Your task to perform on an android device: change alarm snooze length Image 0: 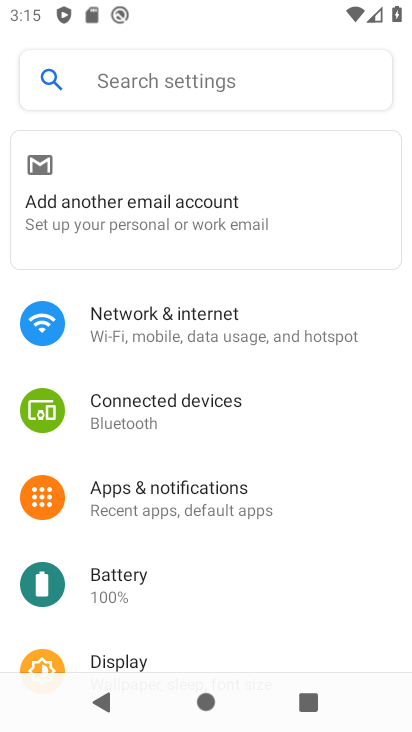
Step 0: press home button
Your task to perform on an android device: change alarm snooze length Image 1: 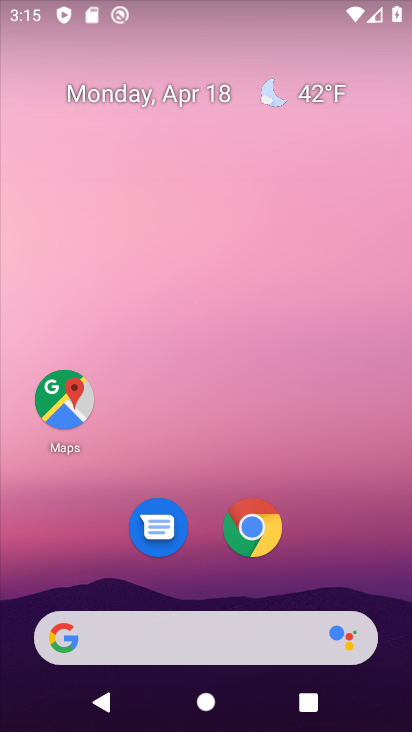
Step 1: drag from (390, 589) to (343, 85)
Your task to perform on an android device: change alarm snooze length Image 2: 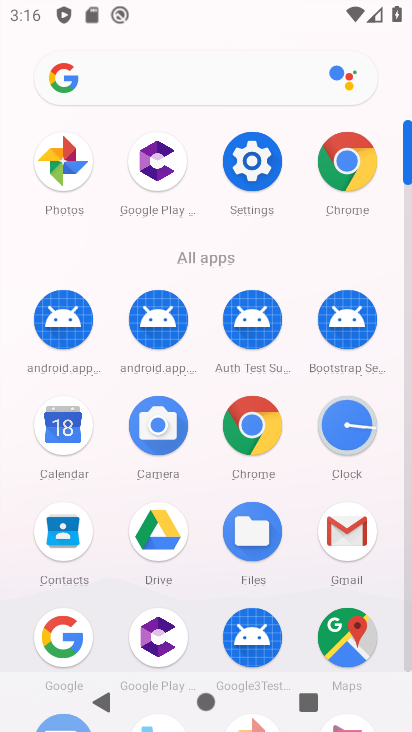
Step 2: click (406, 647)
Your task to perform on an android device: change alarm snooze length Image 3: 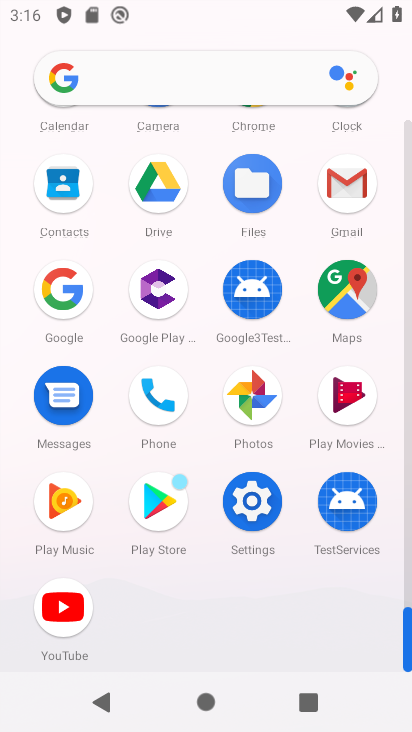
Step 3: click (406, 237)
Your task to perform on an android device: change alarm snooze length Image 4: 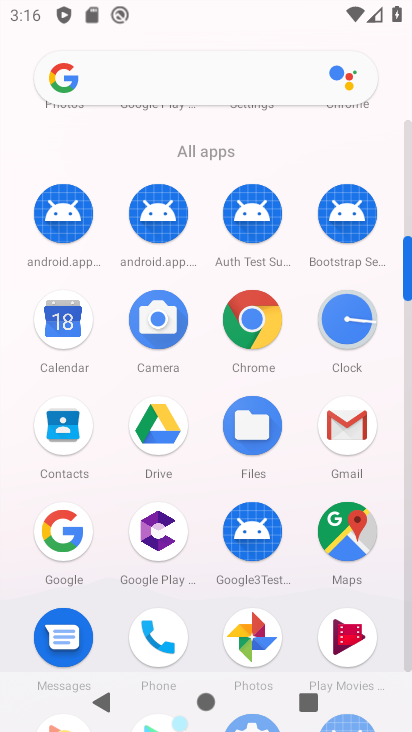
Step 4: click (341, 316)
Your task to perform on an android device: change alarm snooze length Image 5: 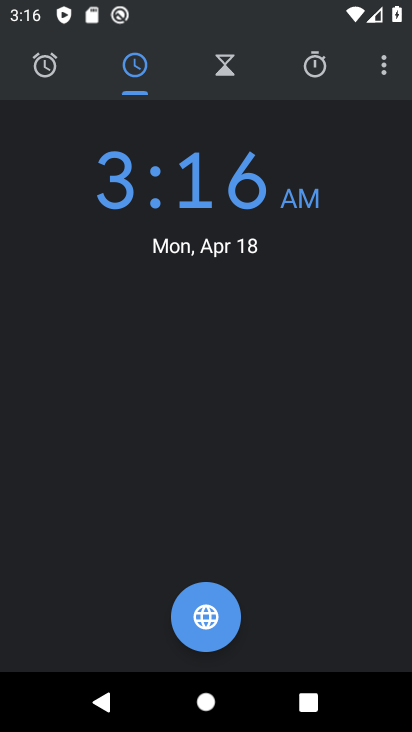
Step 5: click (379, 59)
Your task to perform on an android device: change alarm snooze length Image 6: 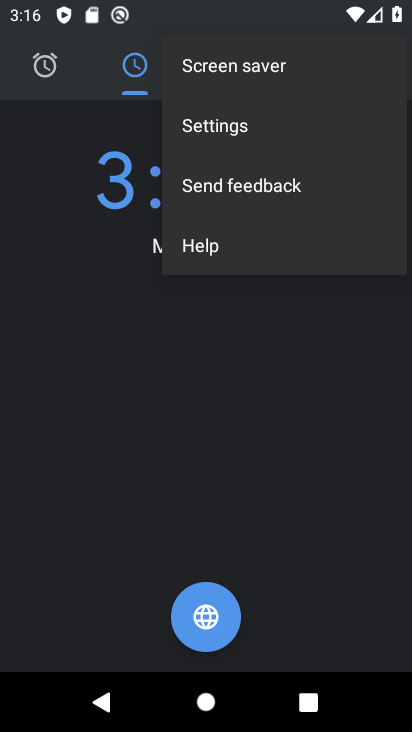
Step 6: click (203, 119)
Your task to perform on an android device: change alarm snooze length Image 7: 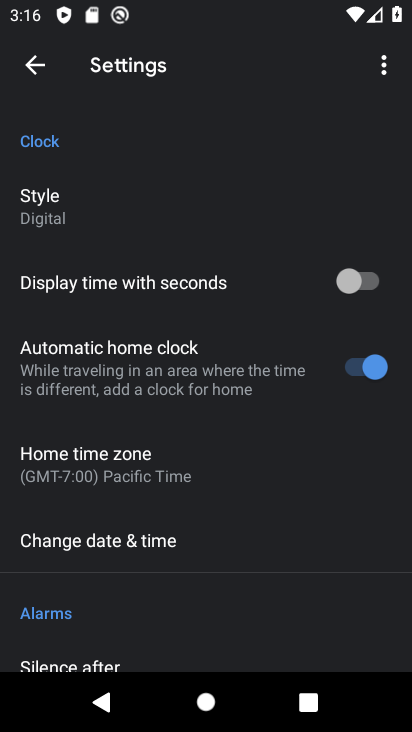
Step 7: drag from (222, 564) to (270, 275)
Your task to perform on an android device: change alarm snooze length Image 8: 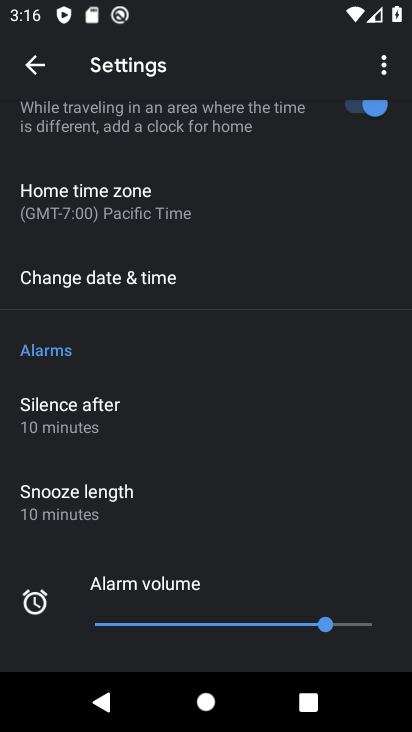
Step 8: click (70, 499)
Your task to perform on an android device: change alarm snooze length Image 9: 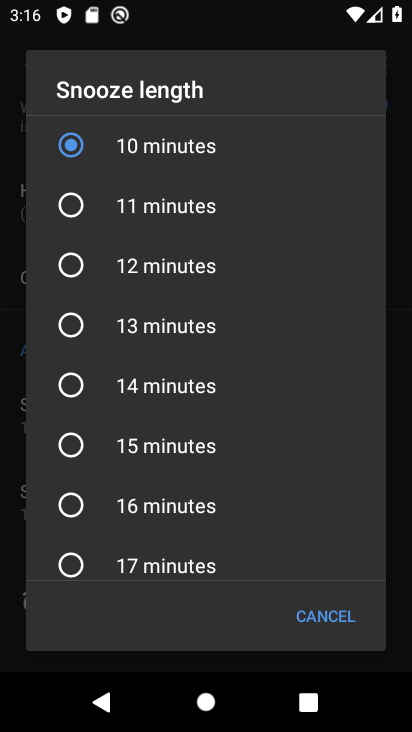
Step 9: click (74, 440)
Your task to perform on an android device: change alarm snooze length Image 10: 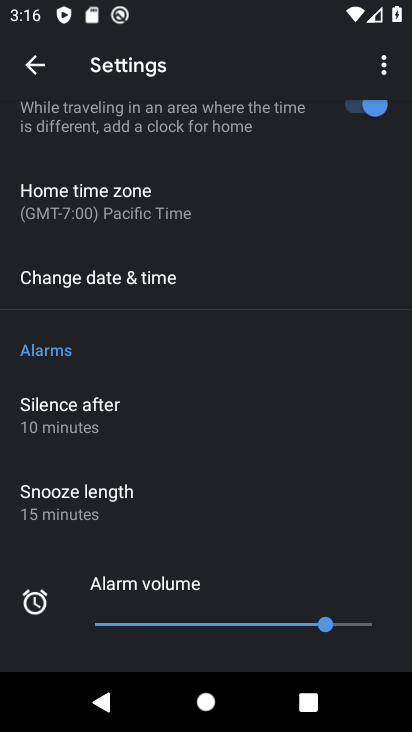
Step 10: task complete